Your task to perform on an android device: Go to calendar. Show me events next week Image 0: 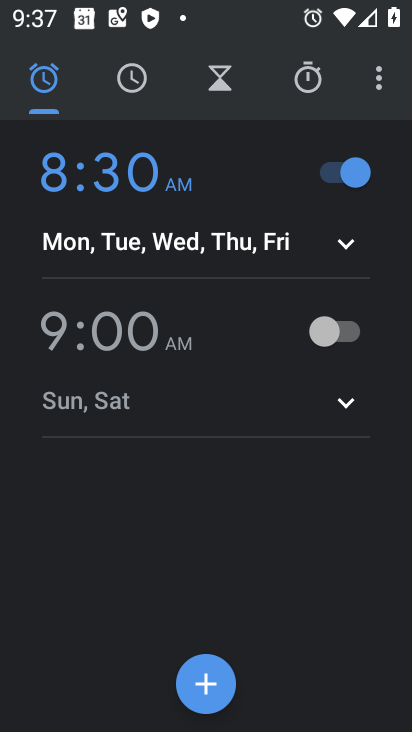
Step 0: press back button
Your task to perform on an android device: Go to calendar. Show me events next week Image 1: 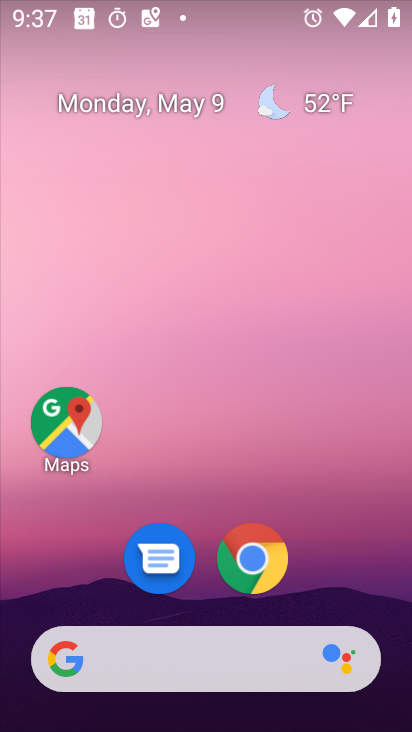
Step 1: drag from (221, 532) to (291, 48)
Your task to perform on an android device: Go to calendar. Show me events next week Image 2: 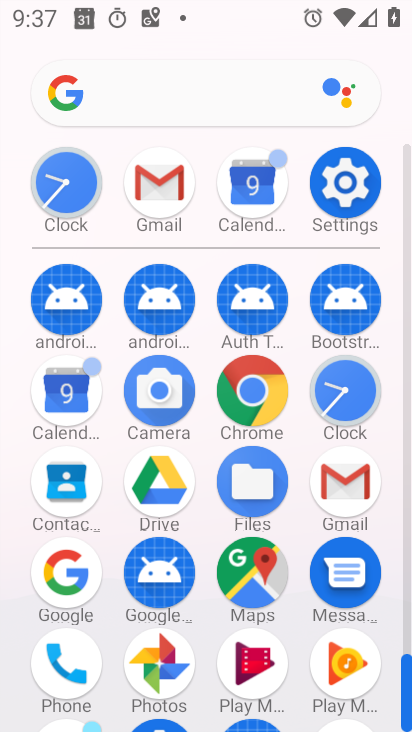
Step 2: click (49, 394)
Your task to perform on an android device: Go to calendar. Show me events next week Image 3: 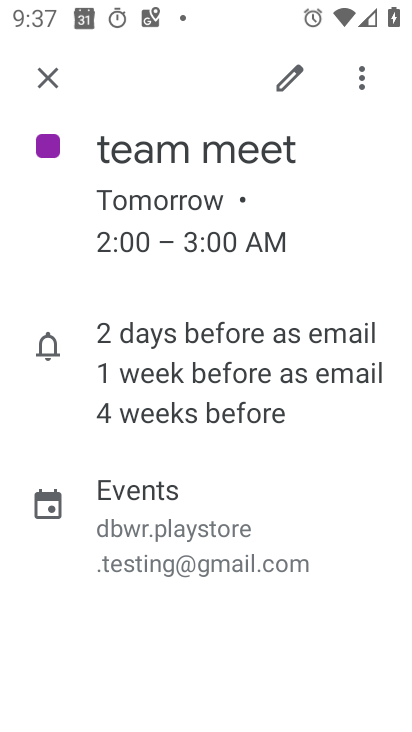
Step 3: click (55, 81)
Your task to perform on an android device: Go to calendar. Show me events next week Image 4: 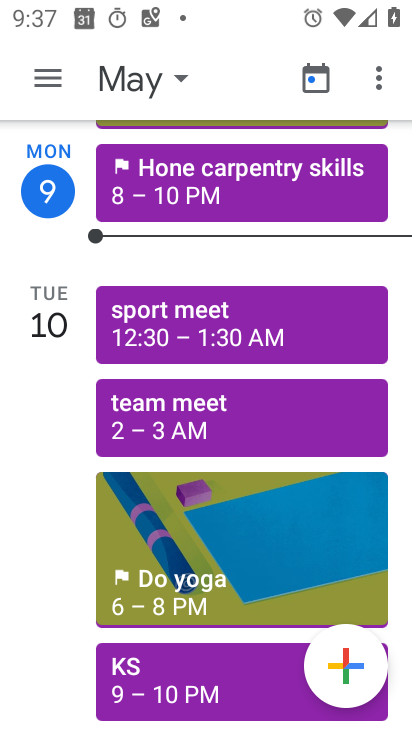
Step 4: click (156, 44)
Your task to perform on an android device: Go to calendar. Show me events next week Image 5: 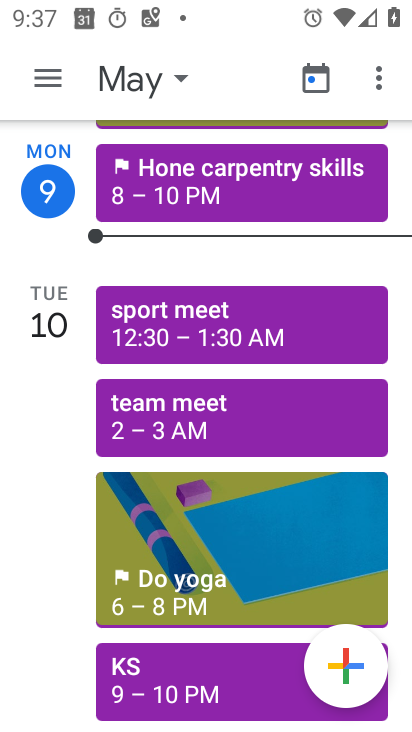
Step 5: click (147, 88)
Your task to perform on an android device: Go to calendar. Show me events next week Image 6: 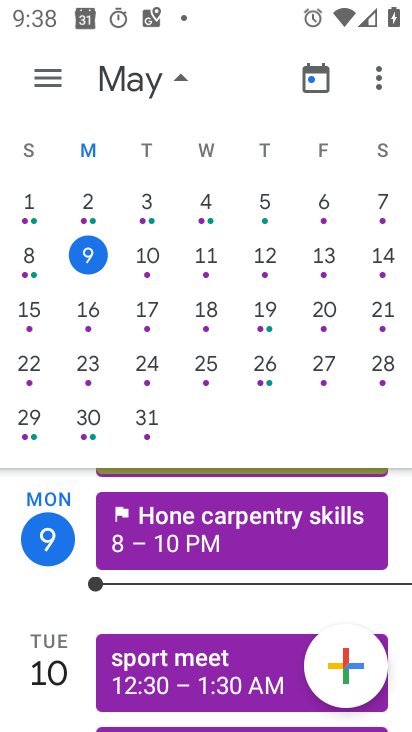
Step 6: click (88, 311)
Your task to perform on an android device: Go to calendar. Show me events next week Image 7: 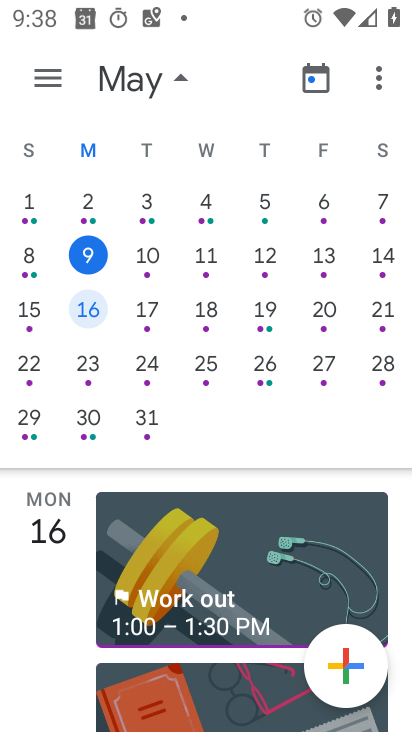
Step 7: drag from (159, 598) to (228, 161)
Your task to perform on an android device: Go to calendar. Show me events next week Image 8: 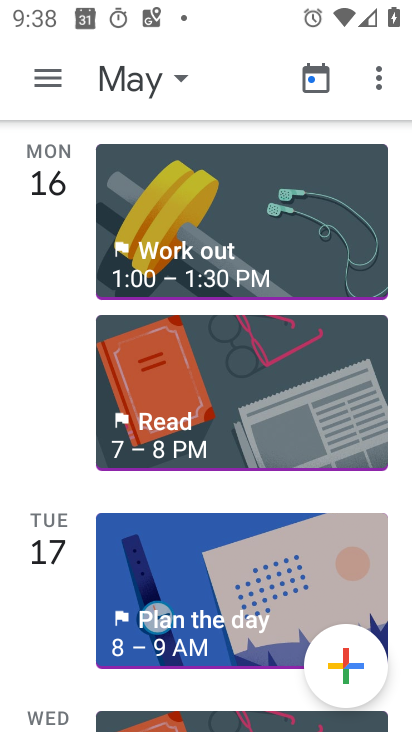
Step 8: drag from (224, 632) to (290, 224)
Your task to perform on an android device: Go to calendar. Show me events next week Image 9: 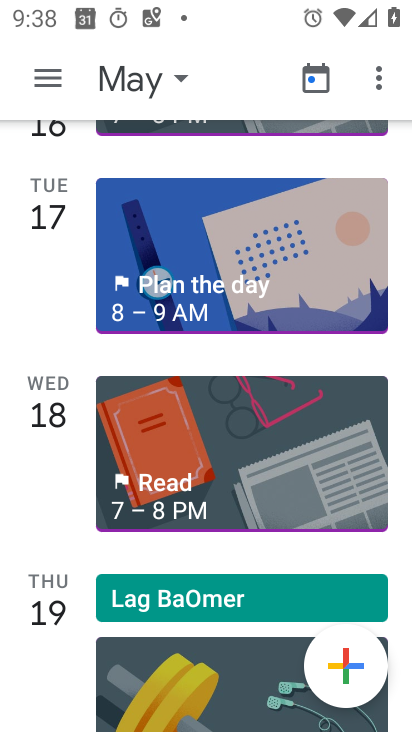
Step 9: click (165, 585)
Your task to perform on an android device: Go to calendar. Show me events next week Image 10: 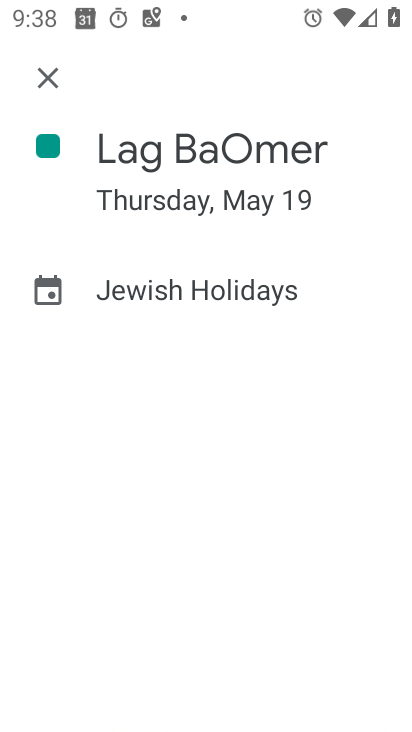
Step 10: task complete